Your task to perform on an android device: toggle pop-ups in chrome Image 0: 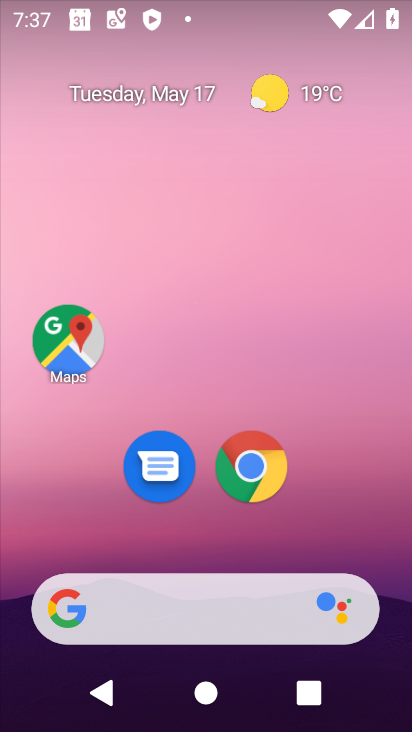
Step 0: click (267, 466)
Your task to perform on an android device: toggle pop-ups in chrome Image 1: 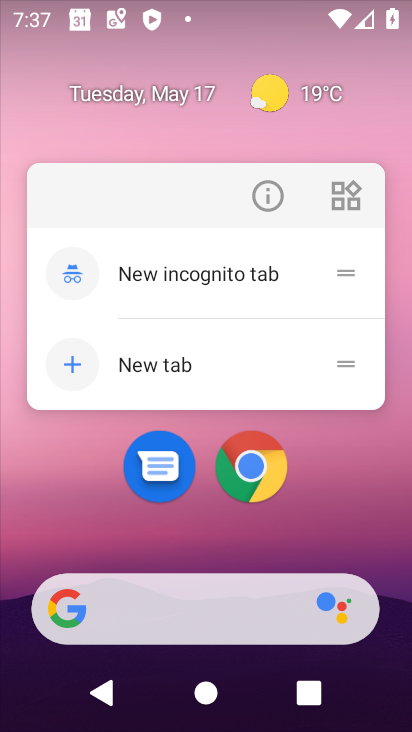
Step 1: click (256, 477)
Your task to perform on an android device: toggle pop-ups in chrome Image 2: 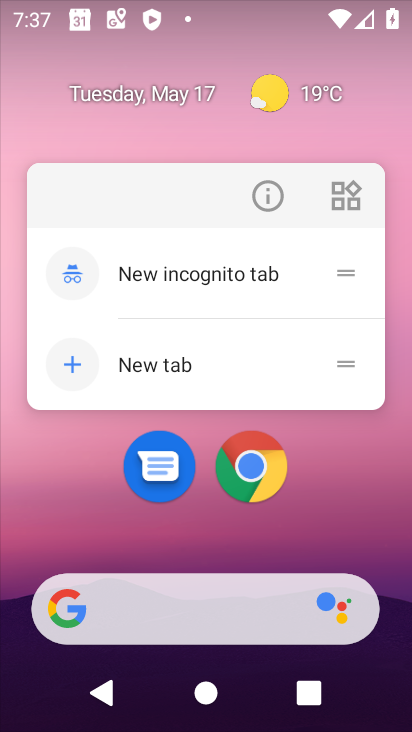
Step 2: click (244, 494)
Your task to perform on an android device: toggle pop-ups in chrome Image 3: 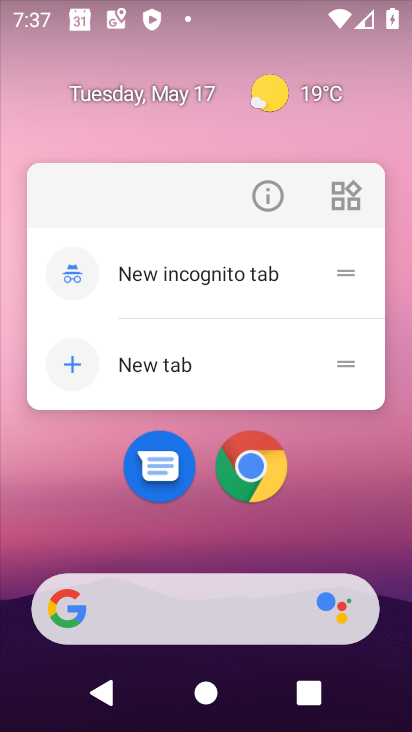
Step 3: click (257, 466)
Your task to perform on an android device: toggle pop-ups in chrome Image 4: 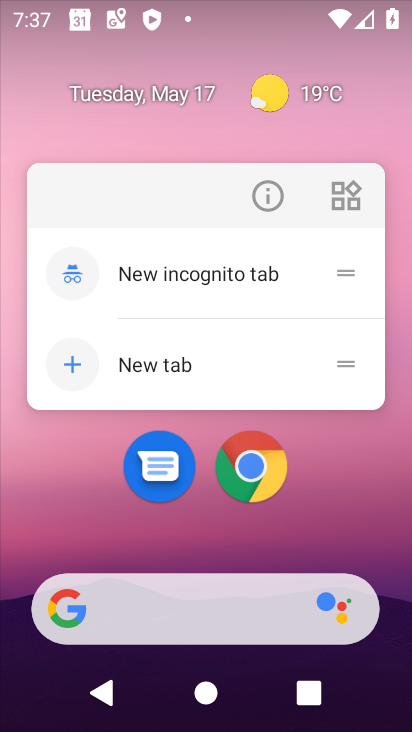
Step 4: click (250, 474)
Your task to perform on an android device: toggle pop-ups in chrome Image 5: 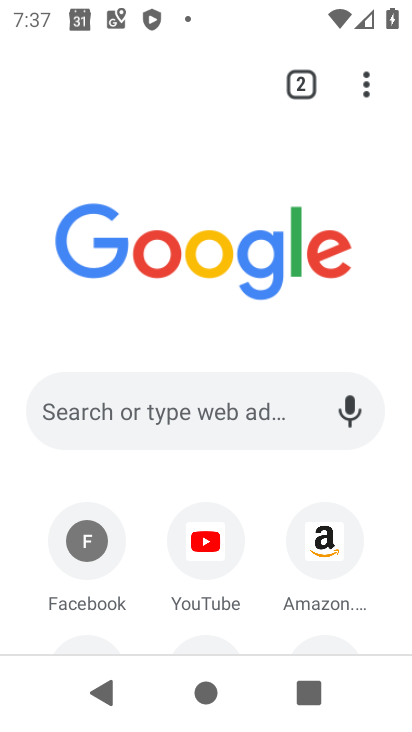
Step 5: drag from (367, 80) to (233, 532)
Your task to perform on an android device: toggle pop-ups in chrome Image 6: 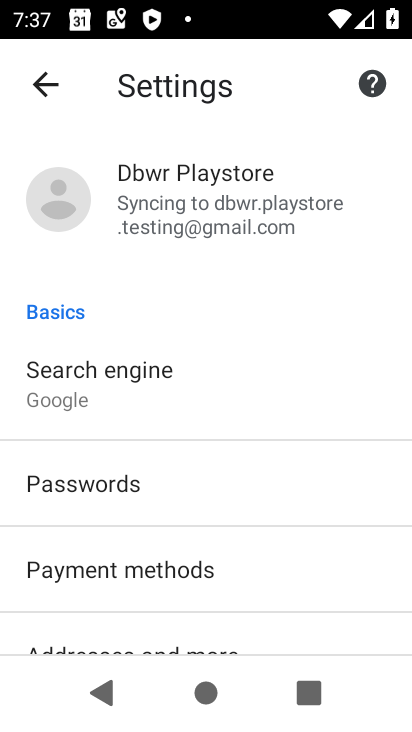
Step 6: drag from (211, 616) to (253, 174)
Your task to perform on an android device: toggle pop-ups in chrome Image 7: 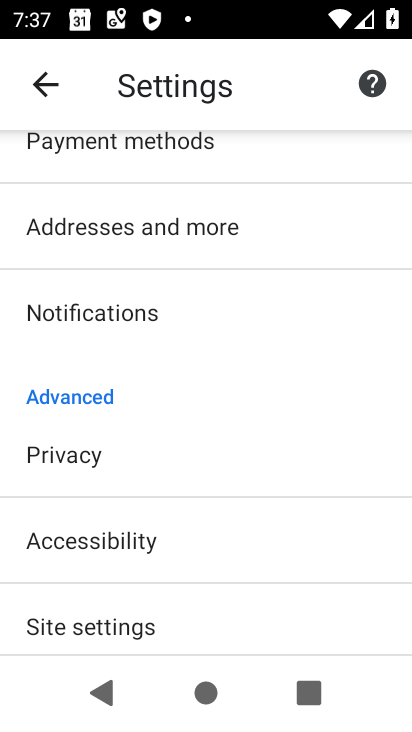
Step 7: drag from (273, 527) to (293, 276)
Your task to perform on an android device: toggle pop-ups in chrome Image 8: 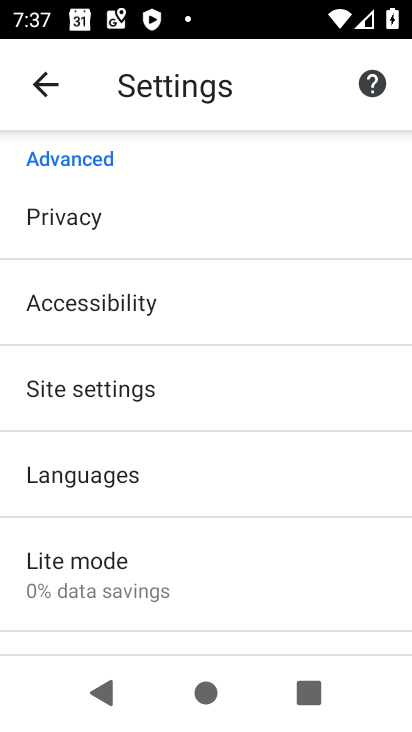
Step 8: click (154, 389)
Your task to perform on an android device: toggle pop-ups in chrome Image 9: 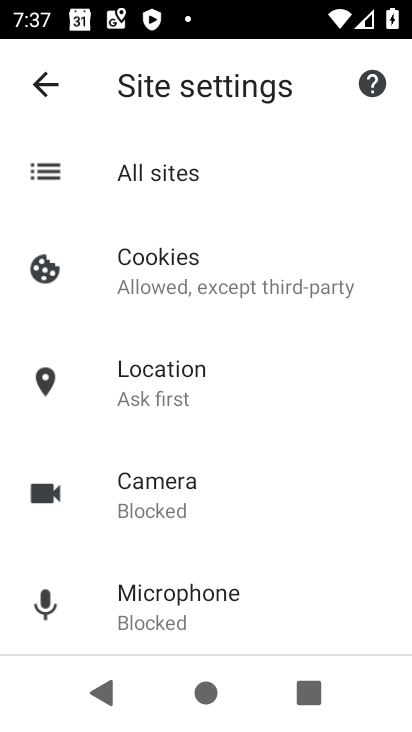
Step 9: drag from (256, 562) to (314, 238)
Your task to perform on an android device: toggle pop-ups in chrome Image 10: 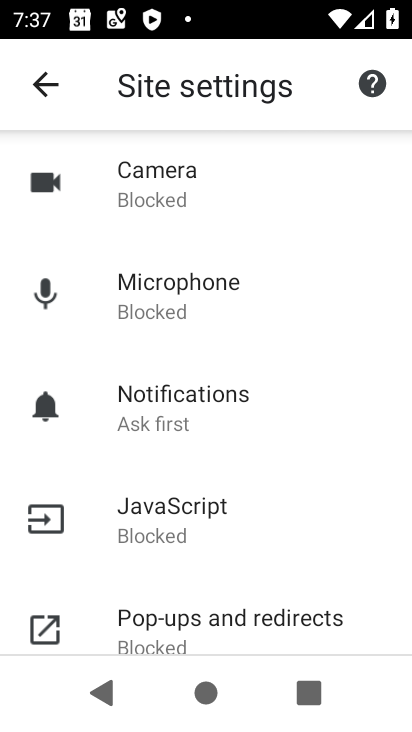
Step 10: drag from (287, 482) to (321, 271)
Your task to perform on an android device: toggle pop-ups in chrome Image 11: 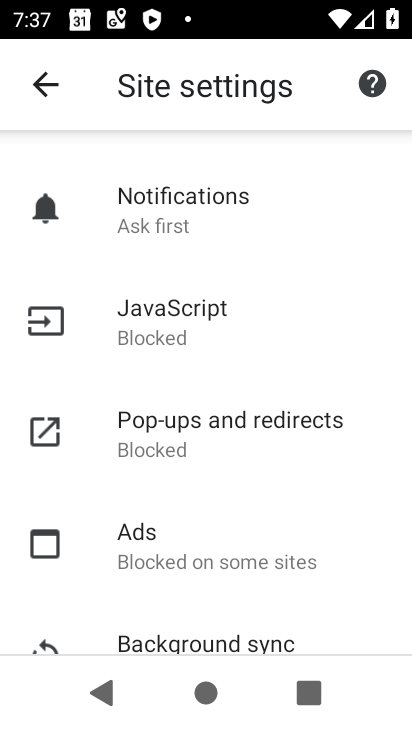
Step 11: click (223, 425)
Your task to perform on an android device: toggle pop-ups in chrome Image 12: 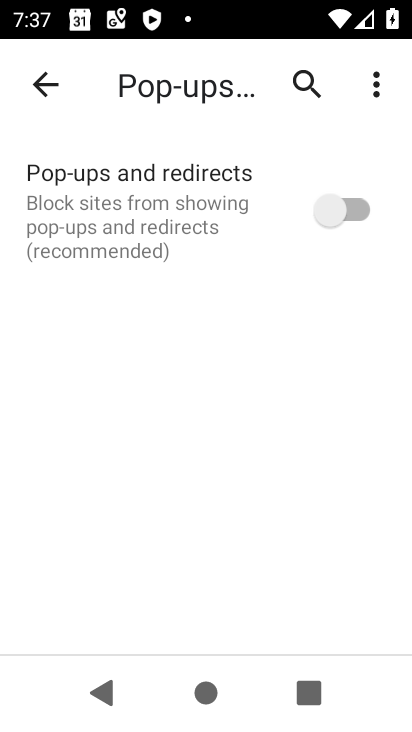
Step 12: click (360, 209)
Your task to perform on an android device: toggle pop-ups in chrome Image 13: 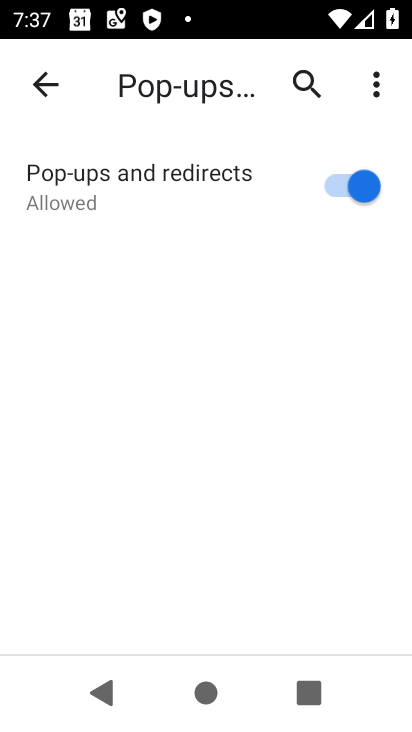
Step 13: task complete